Your task to perform on an android device: What's the weather going to be tomorrow? Image 0: 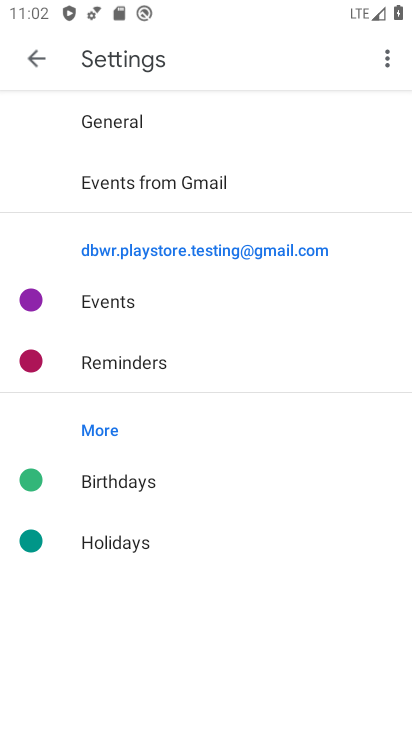
Step 0: press home button
Your task to perform on an android device: What's the weather going to be tomorrow? Image 1: 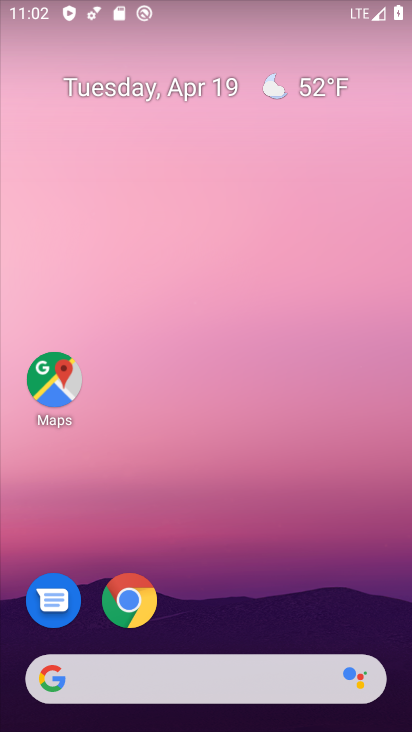
Step 1: drag from (213, 641) to (209, 528)
Your task to perform on an android device: What's the weather going to be tomorrow? Image 2: 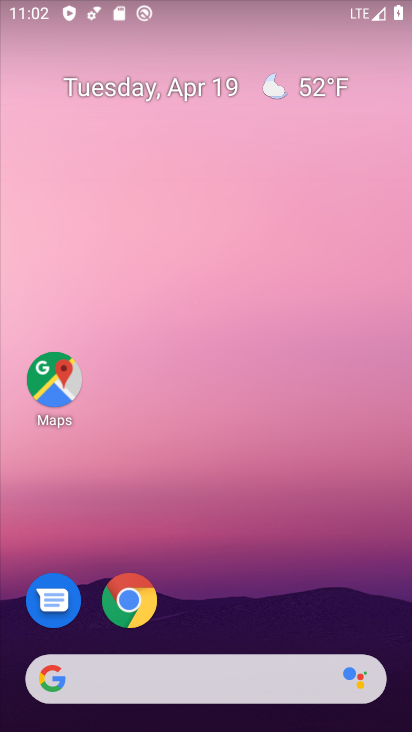
Step 2: click (183, 665)
Your task to perform on an android device: What's the weather going to be tomorrow? Image 3: 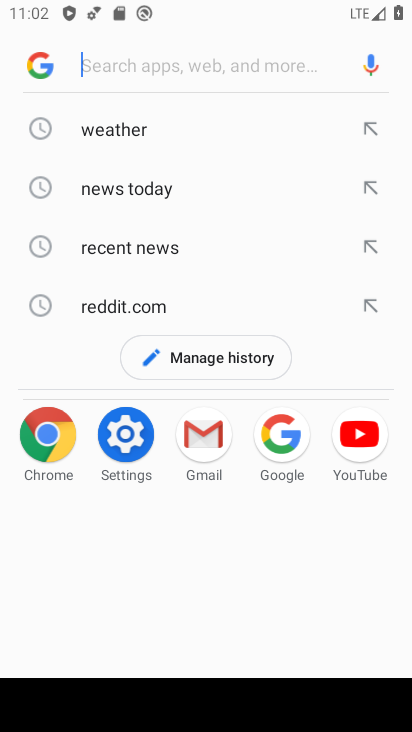
Step 3: click (90, 140)
Your task to perform on an android device: What's the weather going to be tomorrow? Image 4: 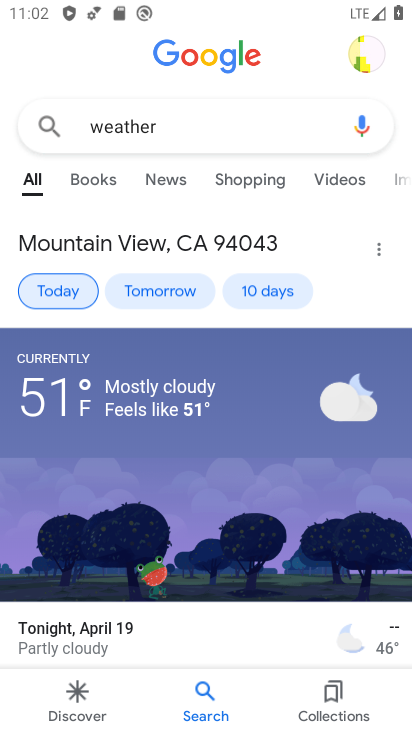
Step 4: task complete